Your task to perform on an android device: Open privacy settings Image 0: 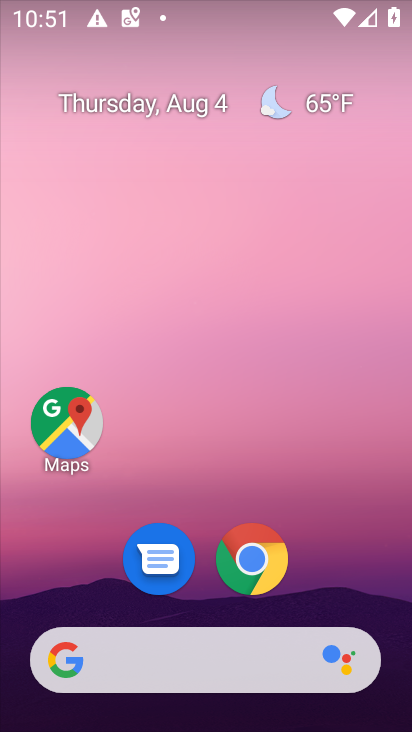
Step 0: drag from (199, 665) to (222, 47)
Your task to perform on an android device: Open privacy settings Image 1: 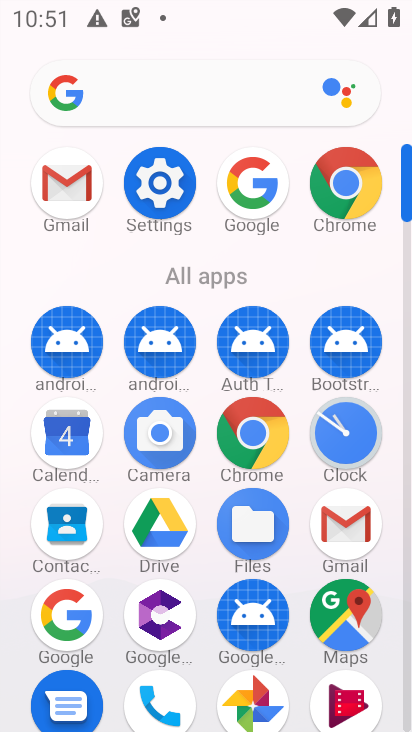
Step 1: click (158, 206)
Your task to perform on an android device: Open privacy settings Image 2: 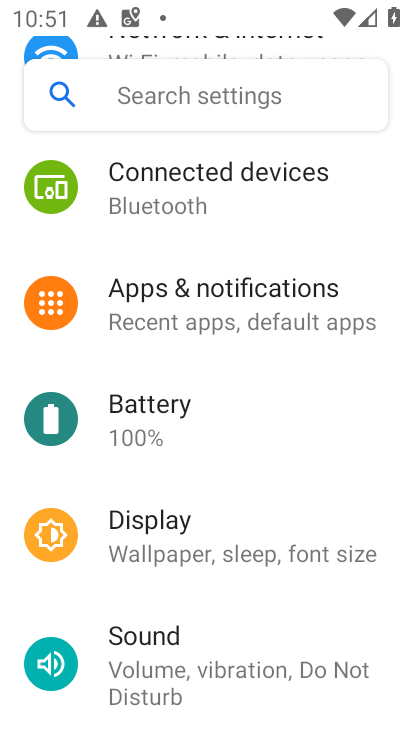
Step 2: drag from (200, 676) to (202, 188)
Your task to perform on an android device: Open privacy settings Image 3: 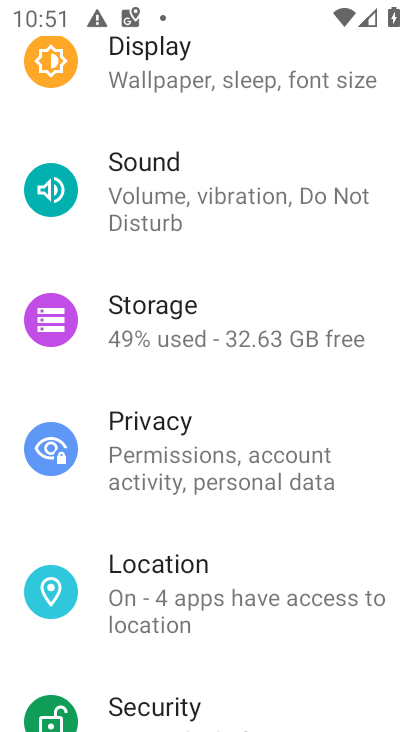
Step 3: click (188, 445)
Your task to perform on an android device: Open privacy settings Image 4: 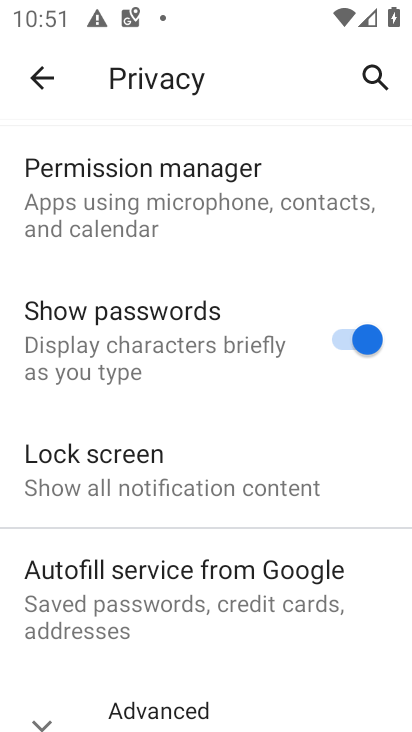
Step 4: task complete